Your task to perform on an android device: Go to eBay Image 0: 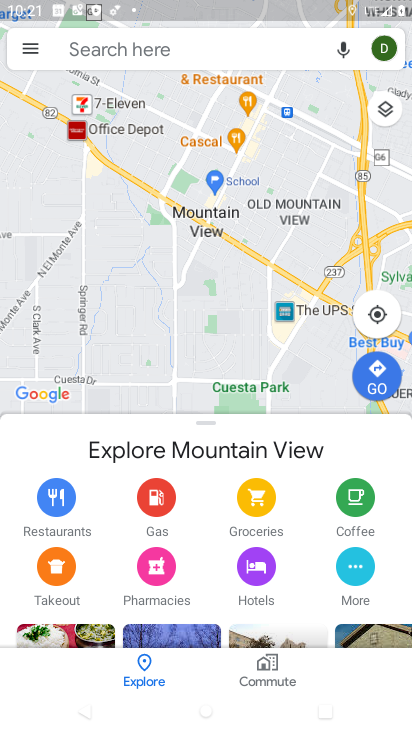
Step 0: press home button
Your task to perform on an android device: Go to eBay Image 1: 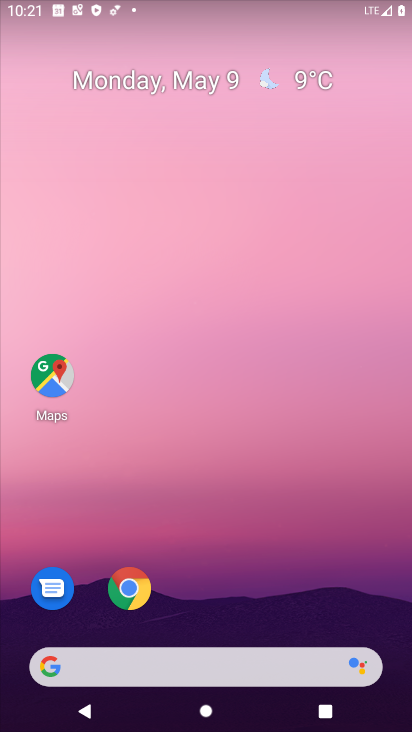
Step 1: click (131, 596)
Your task to perform on an android device: Go to eBay Image 2: 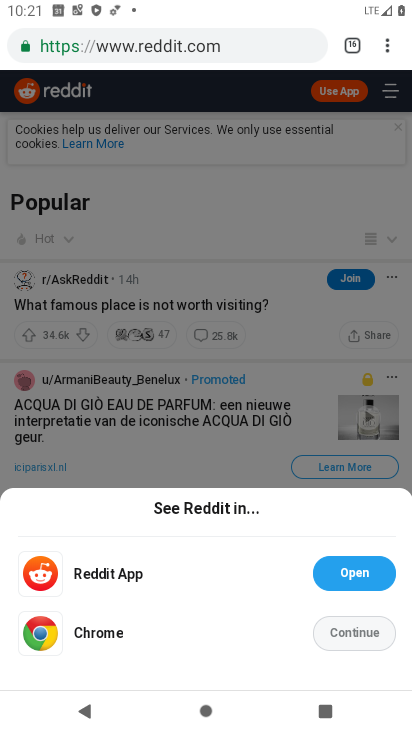
Step 2: drag from (376, 44) to (340, 84)
Your task to perform on an android device: Go to eBay Image 3: 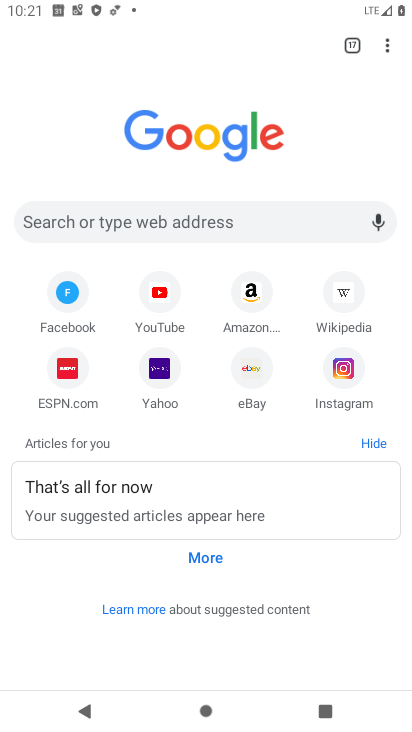
Step 3: click (251, 380)
Your task to perform on an android device: Go to eBay Image 4: 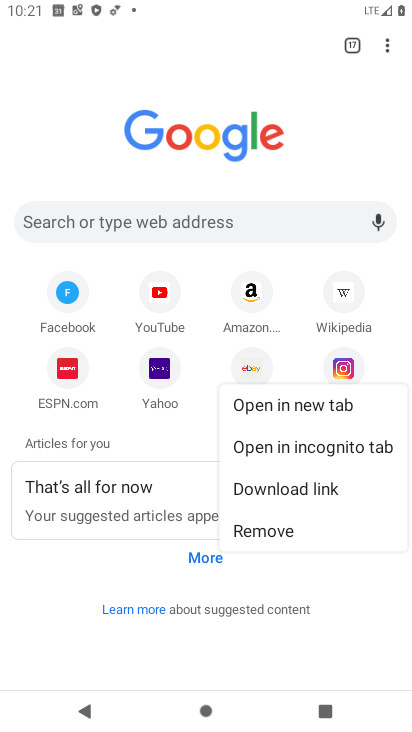
Step 4: click (243, 367)
Your task to perform on an android device: Go to eBay Image 5: 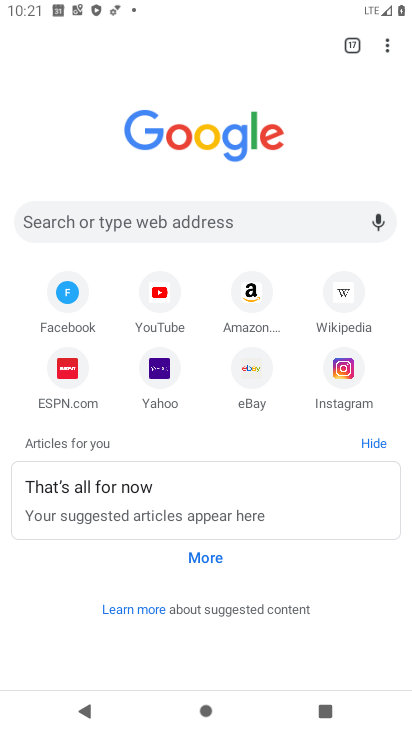
Step 5: click (252, 369)
Your task to perform on an android device: Go to eBay Image 6: 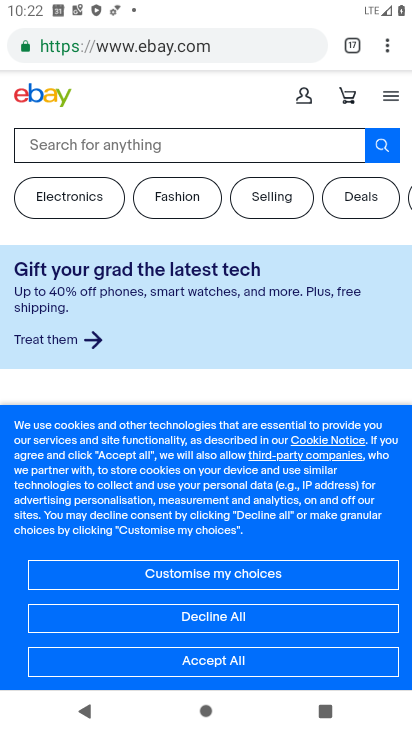
Step 6: task complete